Your task to perform on an android device: Do I have any events tomorrow? Image 0: 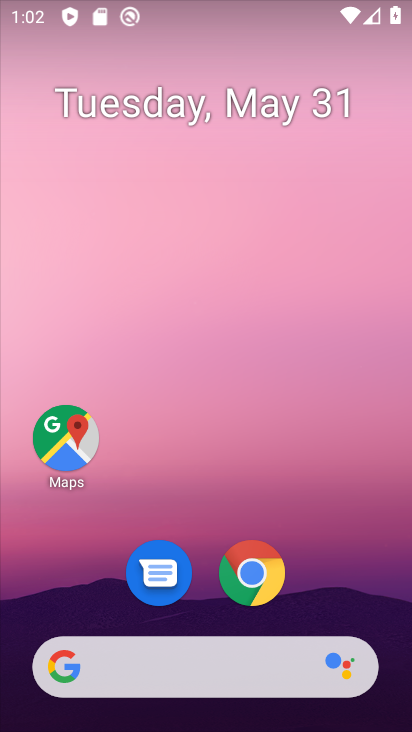
Step 0: drag from (395, 600) to (383, 252)
Your task to perform on an android device: Do I have any events tomorrow? Image 1: 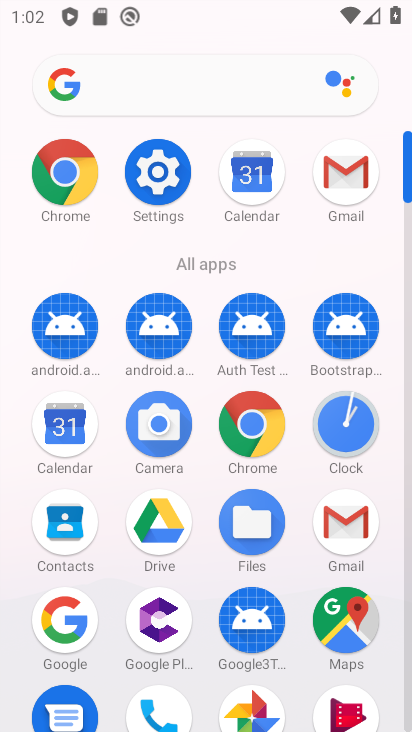
Step 1: click (61, 433)
Your task to perform on an android device: Do I have any events tomorrow? Image 2: 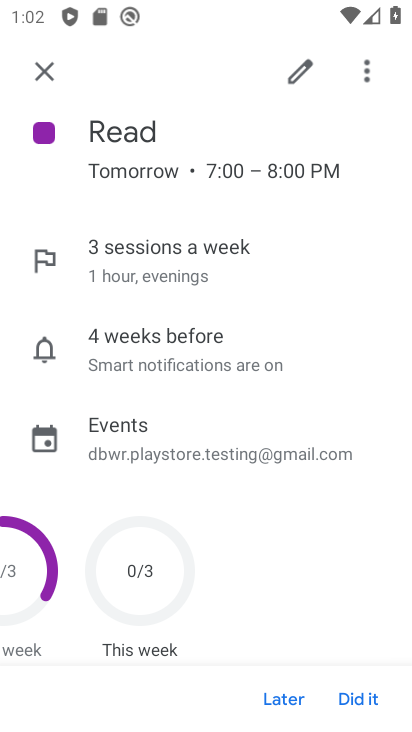
Step 2: click (37, 70)
Your task to perform on an android device: Do I have any events tomorrow? Image 3: 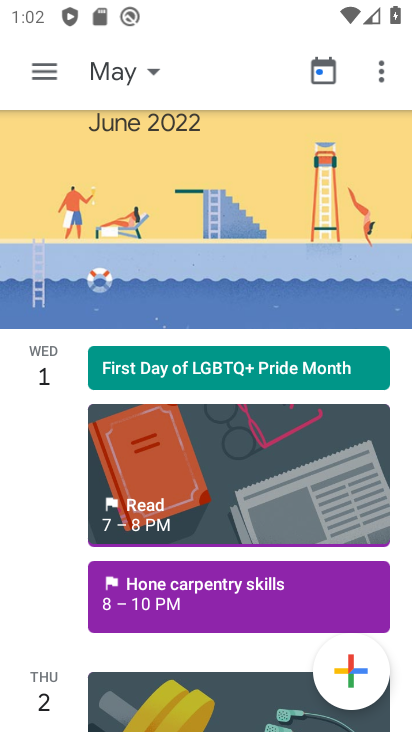
Step 3: click (224, 494)
Your task to perform on an android device: Do I have any events tomorrow? Image 4: 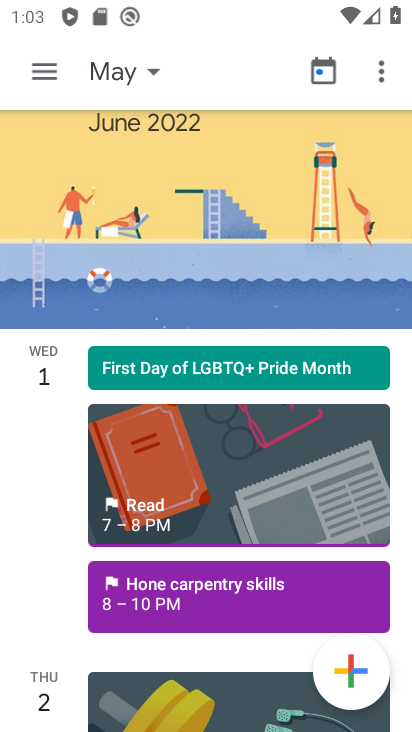
Step 4: task complete